Your task to perform on an android device: What's on my calendar today? Image 0: 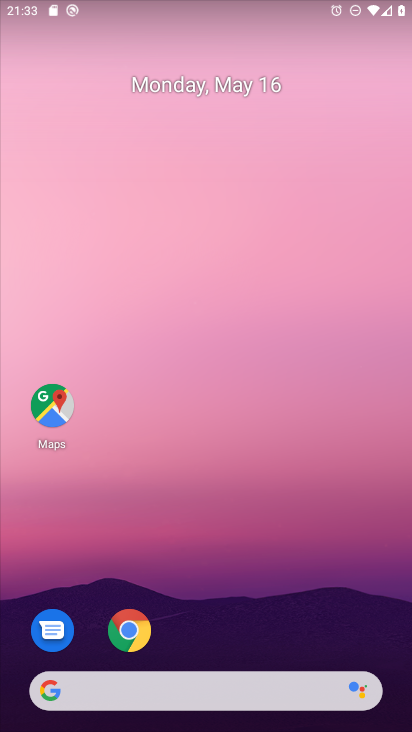
Step 0: drag from (261, 497) to (304, 122)
Your task to perform on an android device: What's on my calendar today? Image 1: 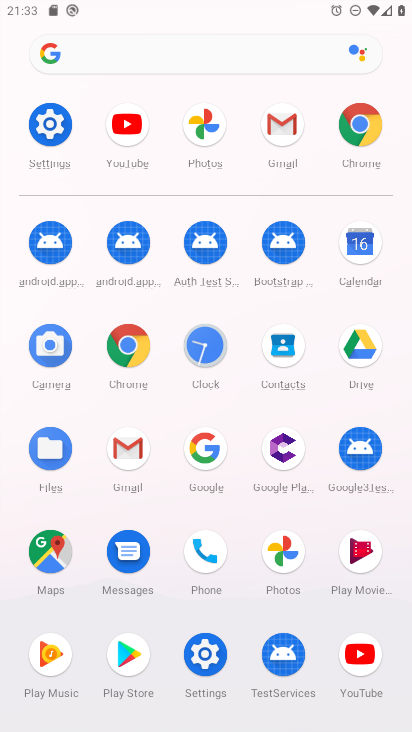
Step 1: click (361, 237)
Your task to perform on an android device: What's on my calendar today? Image 2: 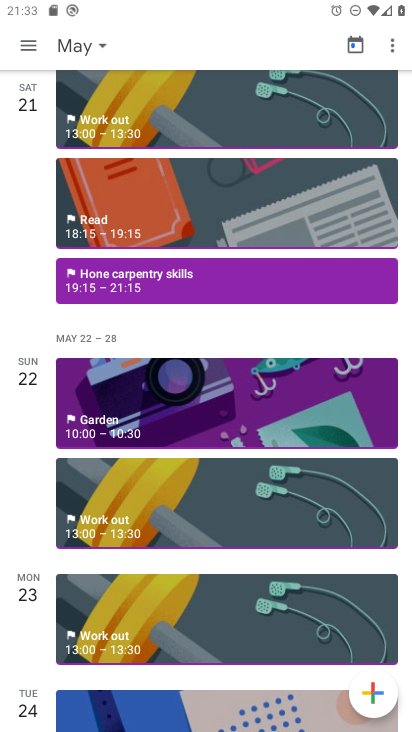
Step 2: drag from (206, 140) to (203, 561)
Your task to perform on an android device: What's on my calendar today? Image 3: 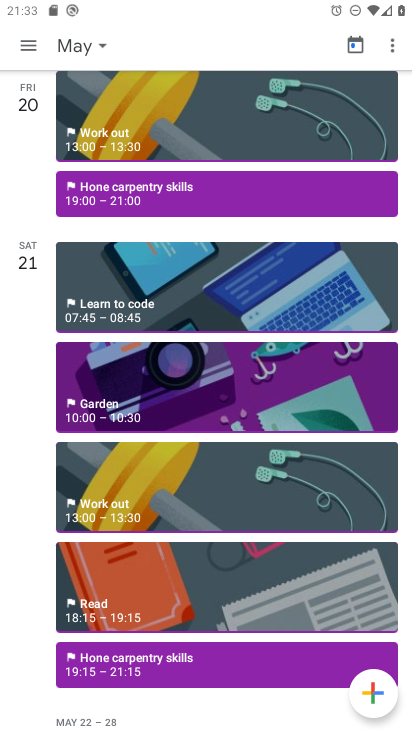
Step 3: drag from (268, 182) to (272, 579)
Your task to perform on an android device: What's on my calendar today? Image 4: 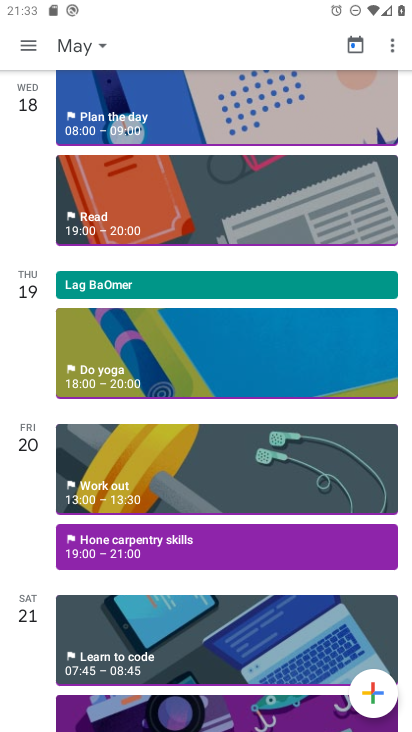
Step 4: drag from (335, 170) to (295, 617)
Your task to perform on an android device: What's on my calendar today? Image 5: 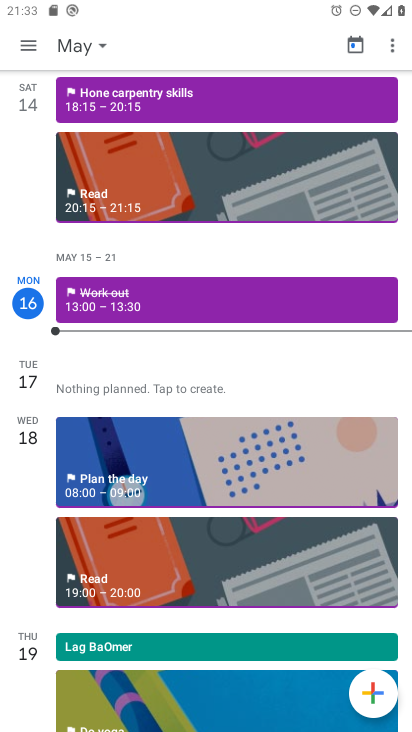
Step 5: click (24, 381)
Your task to perform on an android device: What's on my calendar today? Image 6: 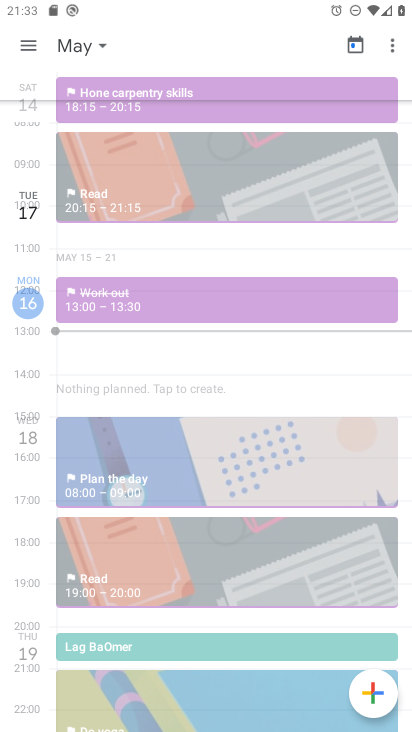
Step 6: click (24, 381)
Your task to perform on an android device: What's on my calendar today? Image 7: 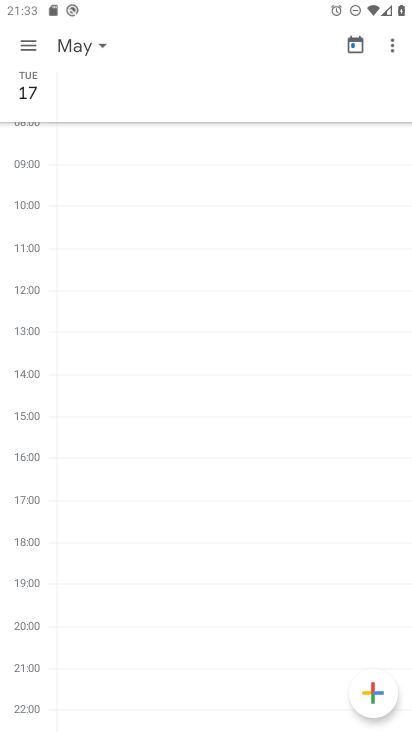
Step 7: task complete